Your task to perform on an android device: toggle data saver in the chrome app Image 0: 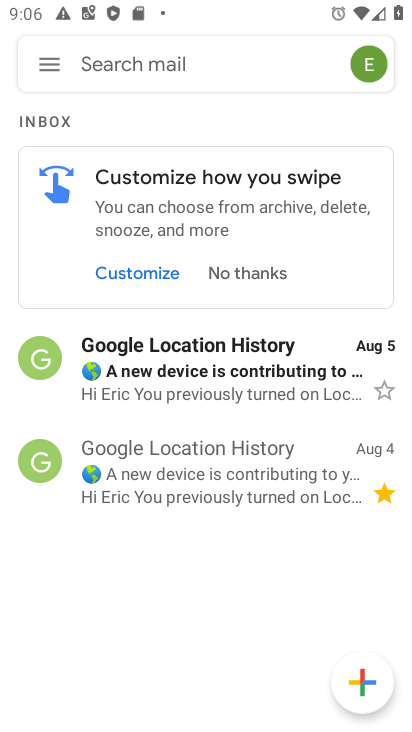
Step 0: press home button
Your task to perform on an android device: toggle data saver in the chrome app Image 1: 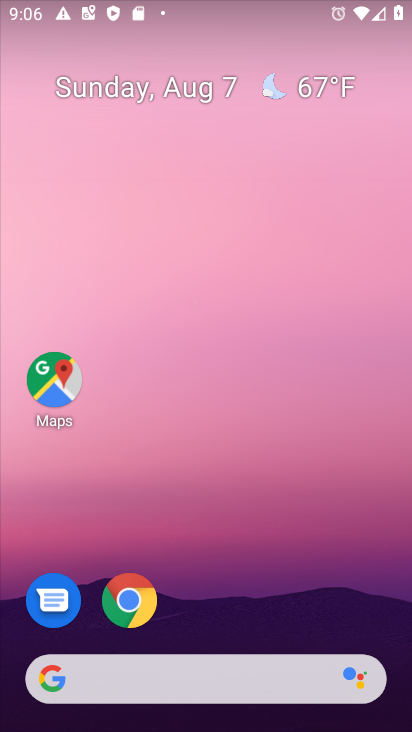
Step 1: click (133, 596)
Your task to perform on an android device: toggle data saver in the chrome app Image 2: 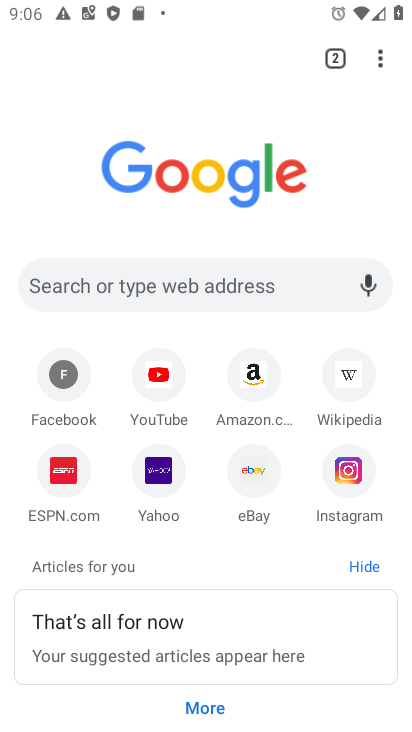
Step 2: click (379, 59)
Your task to perform on an android device: toggle data saver in the chrome app Image 3: 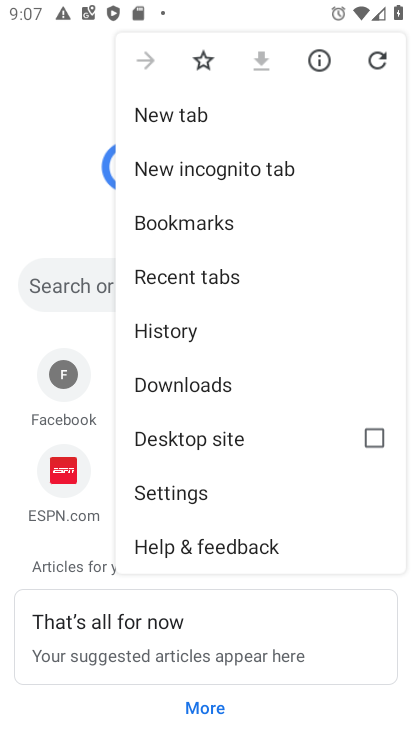
Step 3: click (160, 494)
Your task to perform on an android device: toggle data saver in the chrome app Image 4: 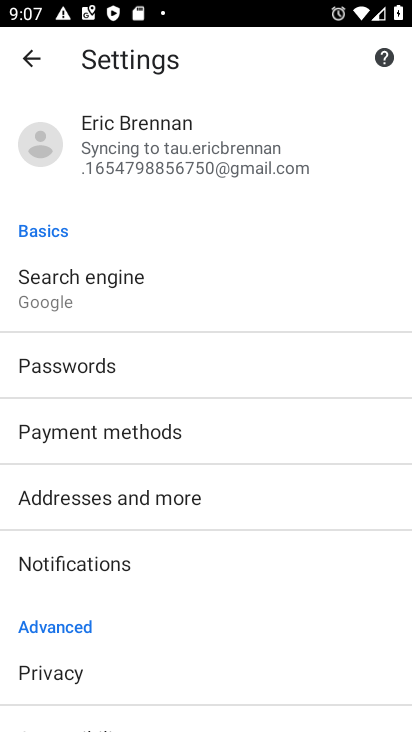
Step 4: drag from (128, 621) to (149, 433)
Your task to perform on an android device: toggle data saver in the chrome app Image 5: 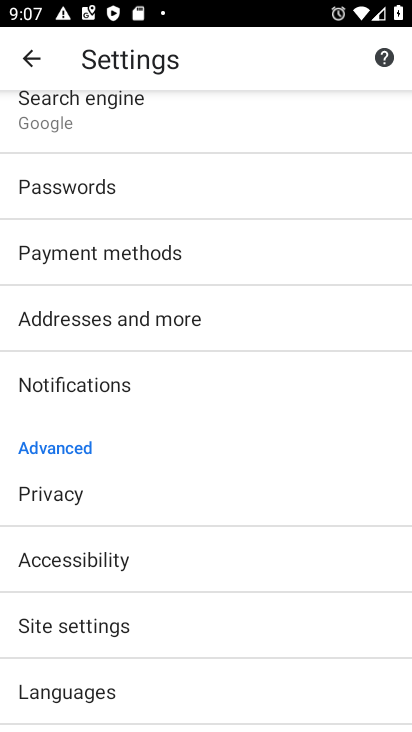
Step 5: drag from (133, 622) to (133, 460)
Your task to perform on an android device: toggle data saver in the chrome app Image 6: 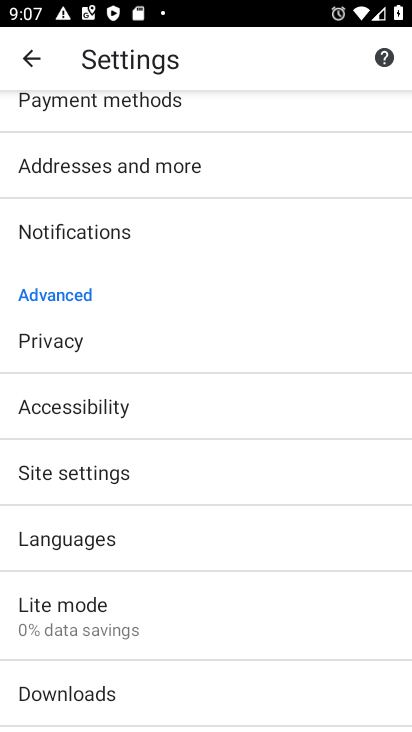
Step 6: click (110, 615)
Your task to perform on an android device: toggle data saver in the chrome app Image 7: 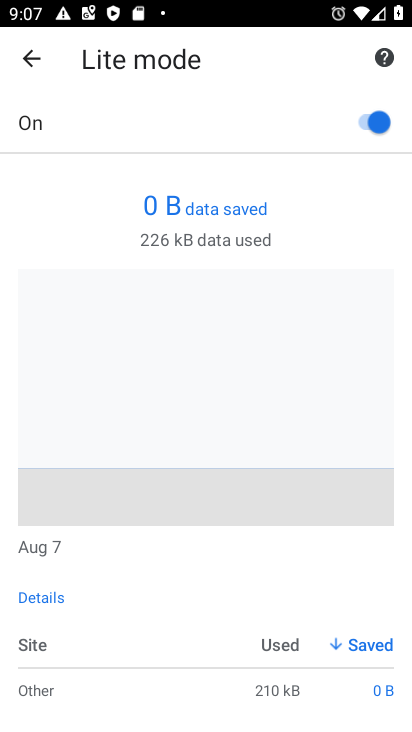
Step 7: click (371, 129)
Your task to perform on an android device: toggle data saver in the chrome app Image 8: 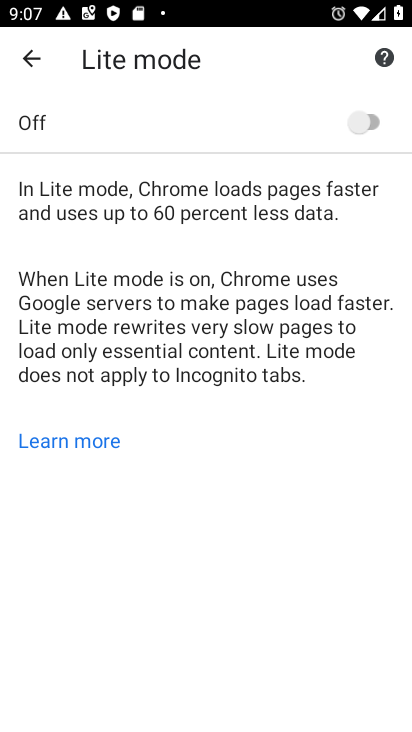
Step 8: task complete